Your task to perform on an android device: Open the map Image 0: 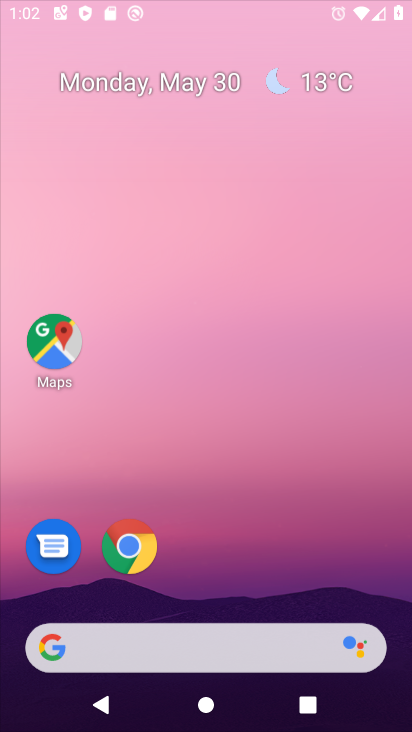
Step 0: press home button
Your task to perform on an android device: Open the map Image 1: 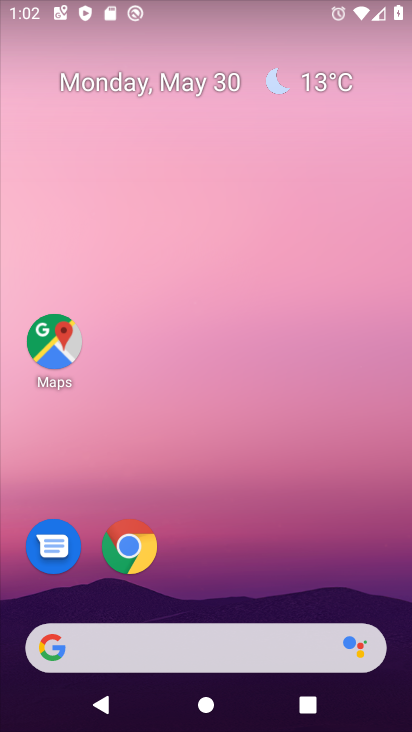
Step 1: click (68, 353)
Your task to perform on an android device: Open the map Image 2: 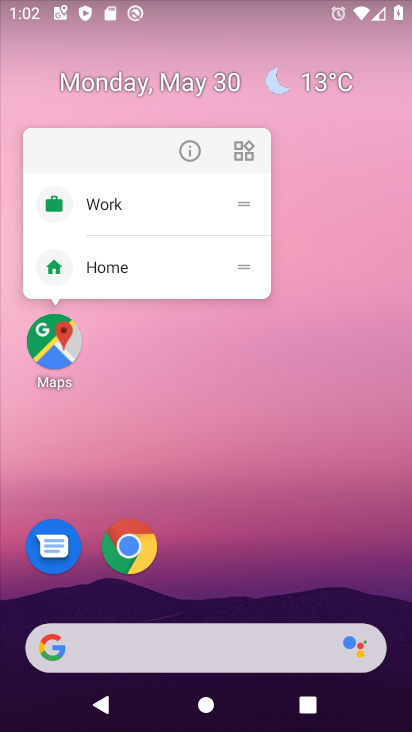
Step 2: click (48, 356)
Your task to perform on an android device: Open the map Image 3: 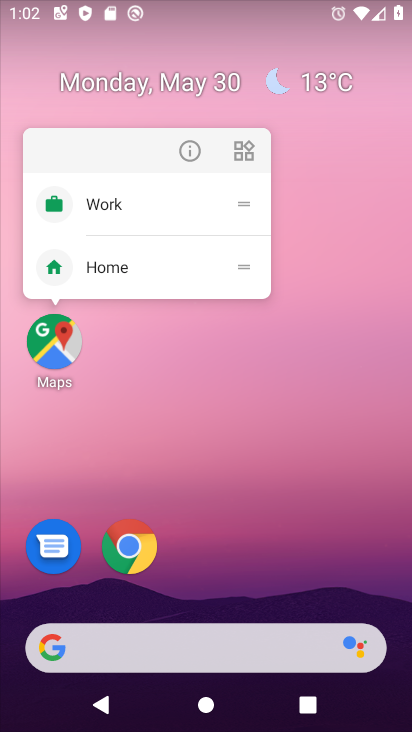
Step 3: click (50, 354)
Your task to perform on an android device: Open the map Image 4: 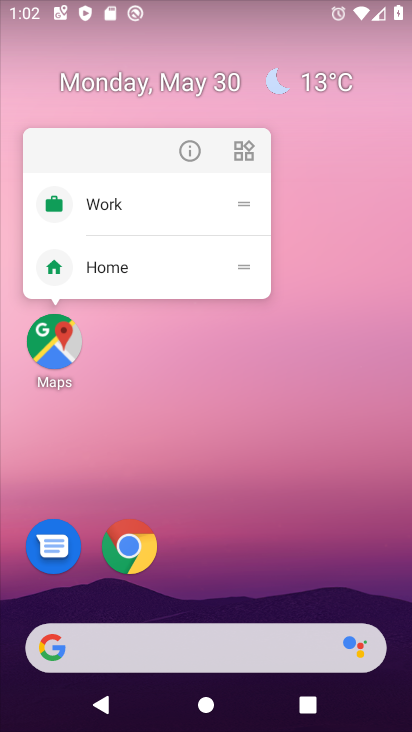
Step 4: click (50, 354)
Your task to perform on an android device: Open the map Image 5: 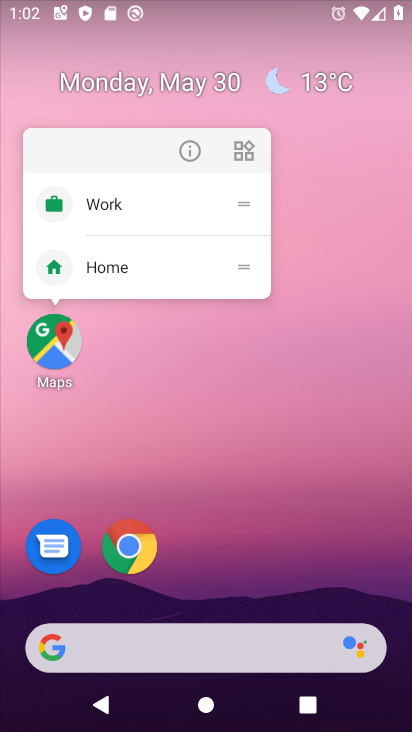
Step 5: click (61, 345)
Your task to perform on an android device: Open the map Image 6: 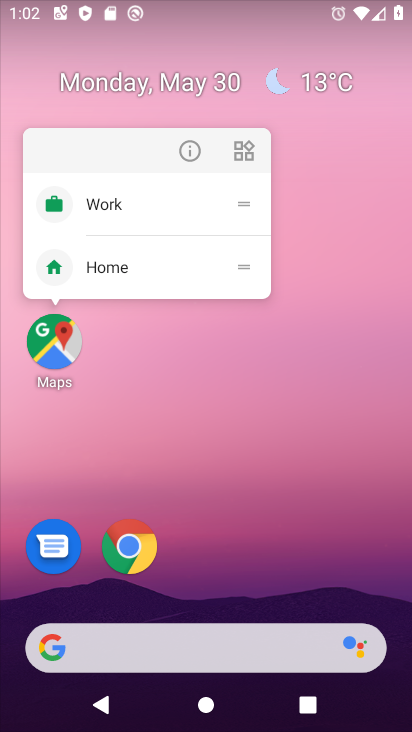
Step 6: drag from (268, 615) to (293, 101)
Your task to perform on an android device: Open the map Image 7: 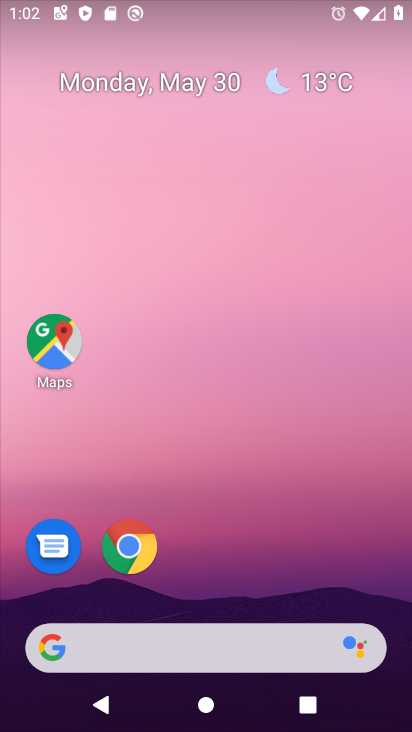
Step 7: drag from (280, 607) to (268, 176)
Your task to perform on an android device: Open the map Image 8: 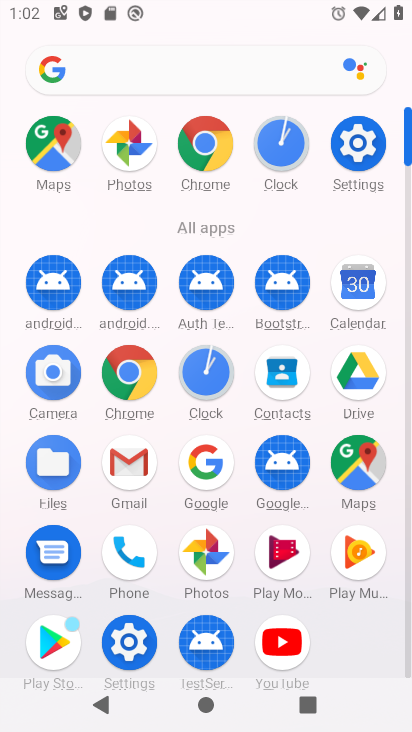
Step 8: click (61, 166)
Your task to perform on an android device: Open the map Image 9: 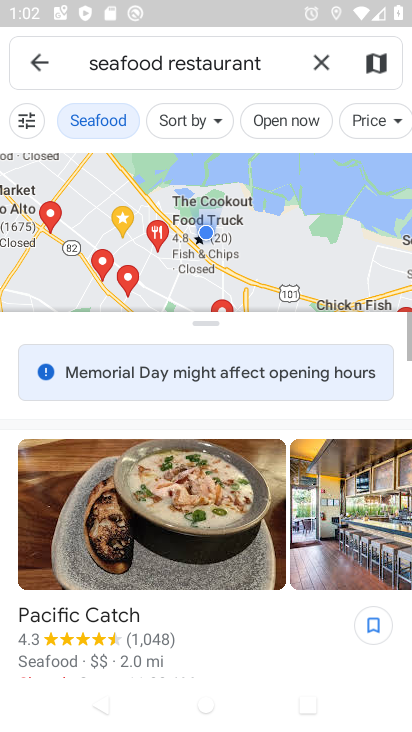
Step 9: click (323, 68)
Your task to perform on an android device: Open the map Image 10: 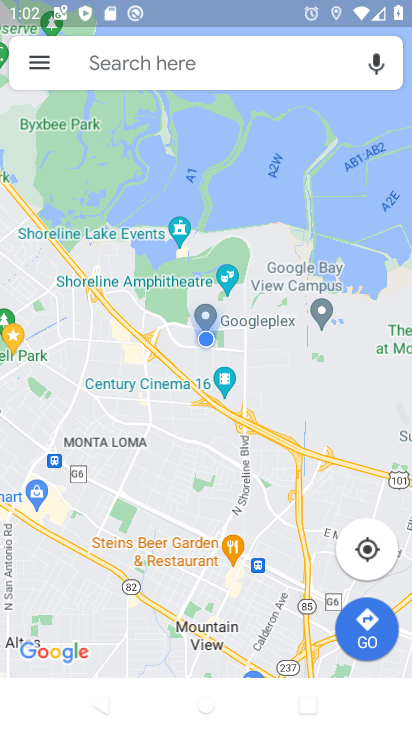
Step 10: task complete